Your task to perform on an android device: Search for vegetarian restaurants on Maps Image 0: 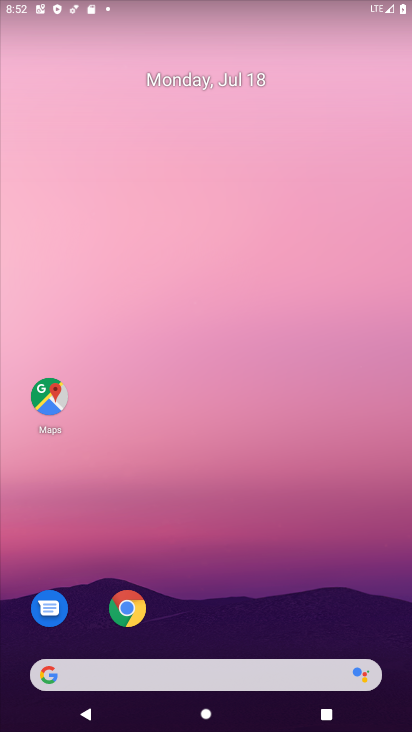
Step 0: click (54, 376)
Your task to perform on an android device: Search for vegetarian restaurants on Maps Image 1: 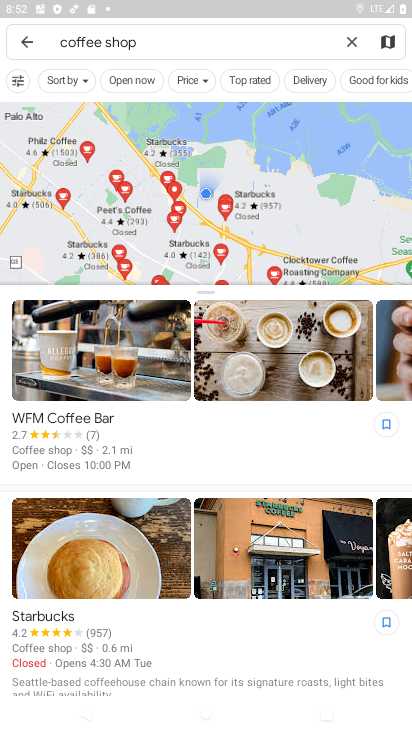
Step 1: click (354, 38)
Your task to perform on an android device: Search for vegetarian restaurants on Maps Image 2: 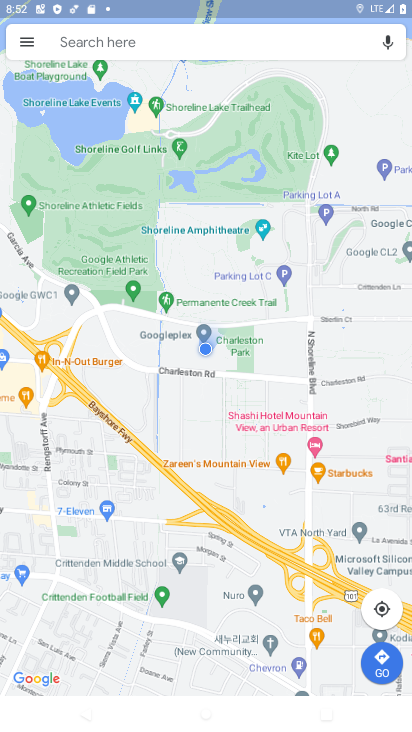
Step 2: click (94, 36)
Your task to perform on an android device: Search for vegetarian restaurants on Maps Image 3: 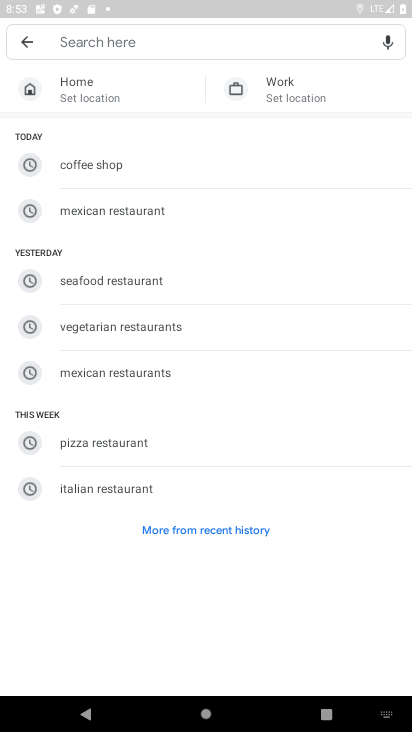
Step 3: click (321, 458)
Your task to perform on an android device: Search for vegetarian restaurants on Maps Image 4: 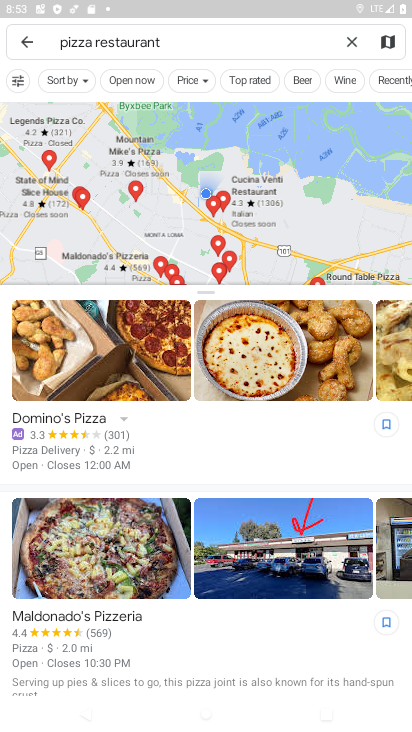
Step 4: click (352, 37)
Your task to perform on an android device: Search for vegetarian restaurants on Maps Image 5: 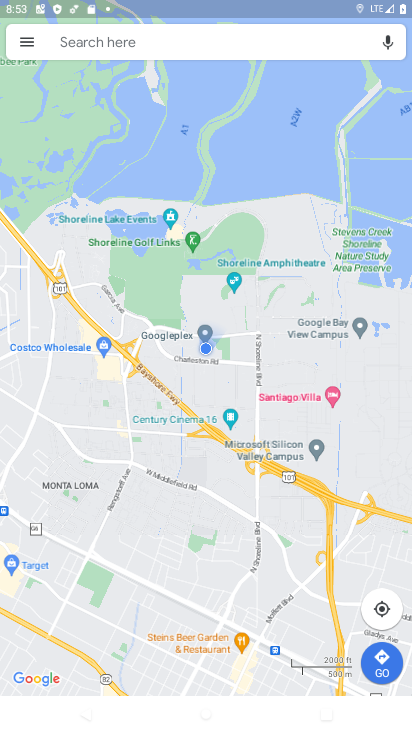
Step 5: click (66, 35)
Your task to perform on an android device: Search for vegetarian restaurants on Maps Image 6: 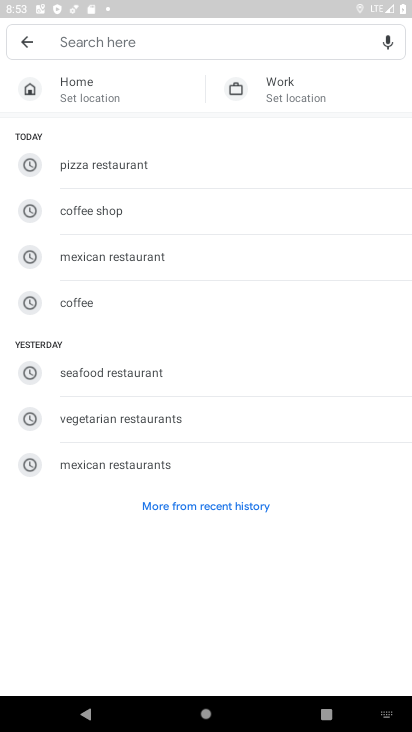
Step 6: click (164, 421)
Your task to perform on an android device: Search for vegetarian restaurants on Maps Image 7: 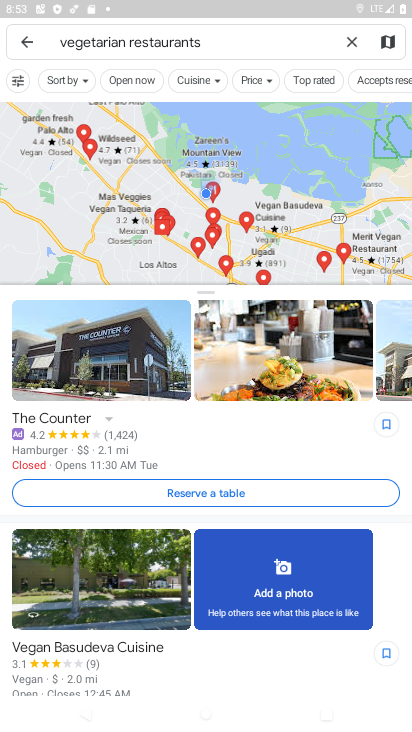
Step 7: task complete